Your task to perform on an android device: What's the weather going to be tomorrow? Image 0: 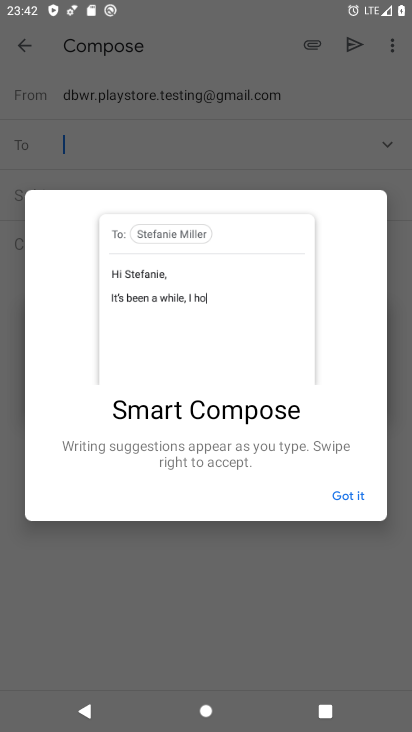
Step 0: press home button
Your task to perform on an android device: What's the weather going to be tomorrow? Image 1: 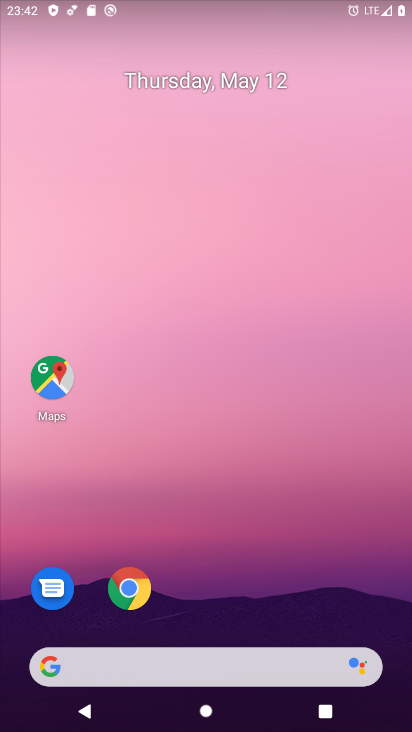
Step 1: drag from (161, 613) to (255, 221)
Your task to perform on an android device: What's the weather going to be tomorrow? Image 2: 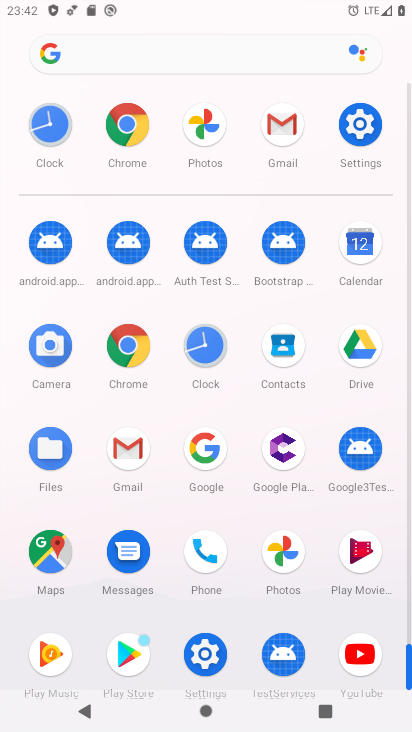
Step 2: click (197, 54)
Your task to perform on an android device: What's the weather going to be tomorrow? Image 3: 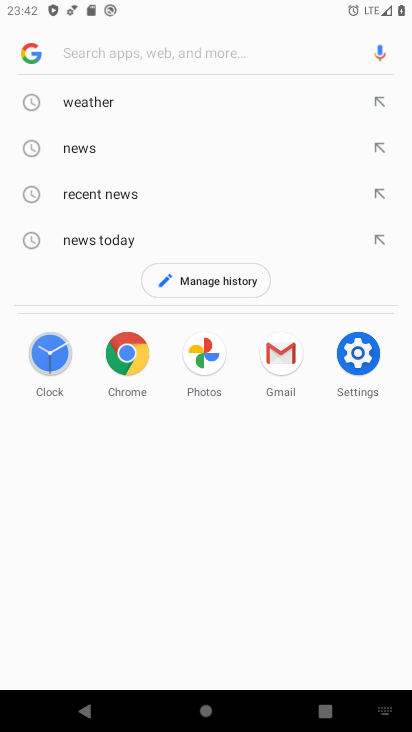
Step 3: type "weather tomorrow"
Your task to perform on an android device: What's the weather going to be tomorrow? Image 4: 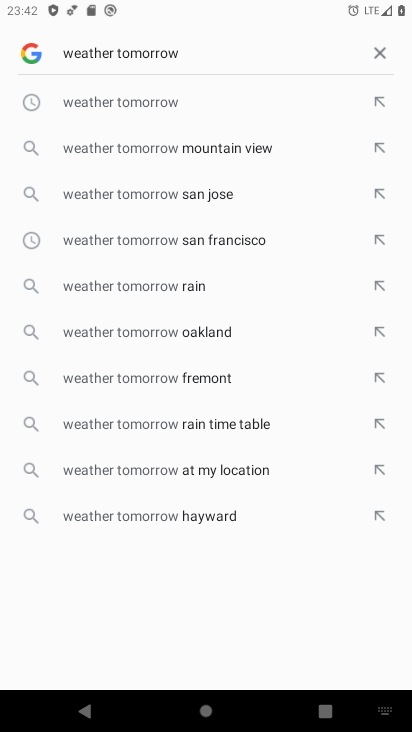
Step 4: click (176, 100)
Your task to perform on an android device: What's the weather going to be tomorrow? Image 5: 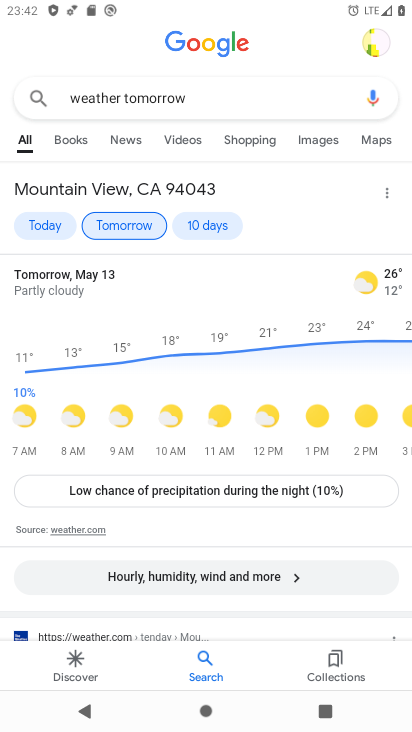
Step 5: task complete